Your task to perform on an android device: delete a single message in the gmail app Image 0: 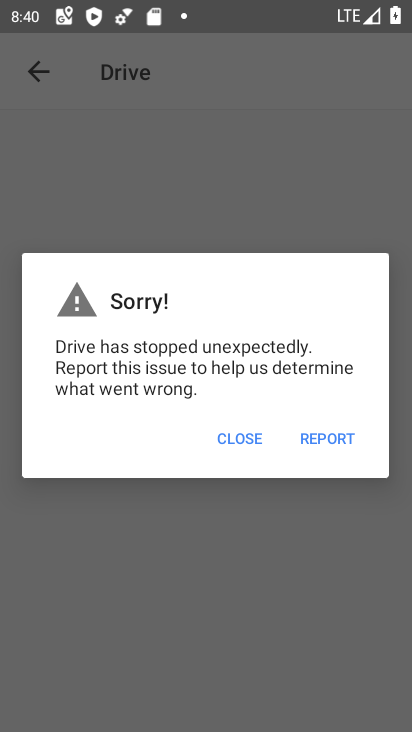
Step 0: press home button
Your task to perform on an android device: delete a single message in the gmail app Image 1: 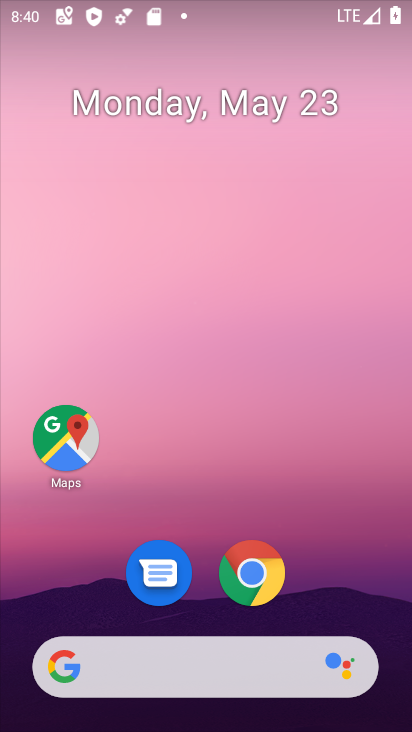
Step 1: drag from (337, 549) to (295, 18)
Your task to perform on an android device: delete a single message in the gmail app Image 2: 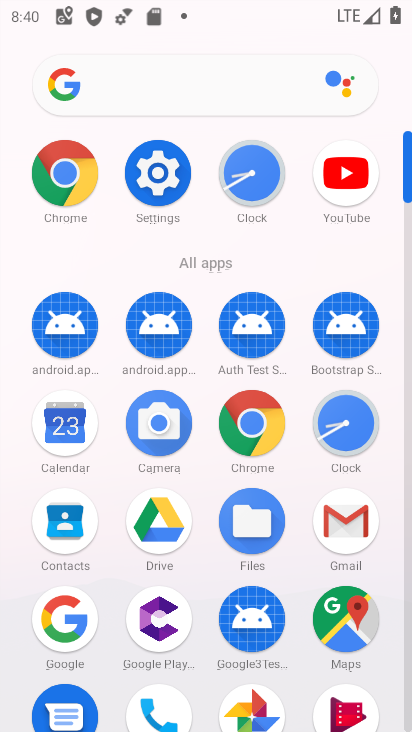
Step 2: click (342, 518)
Your task to perform on an android device: delete a single message in the gmail app Image 3: 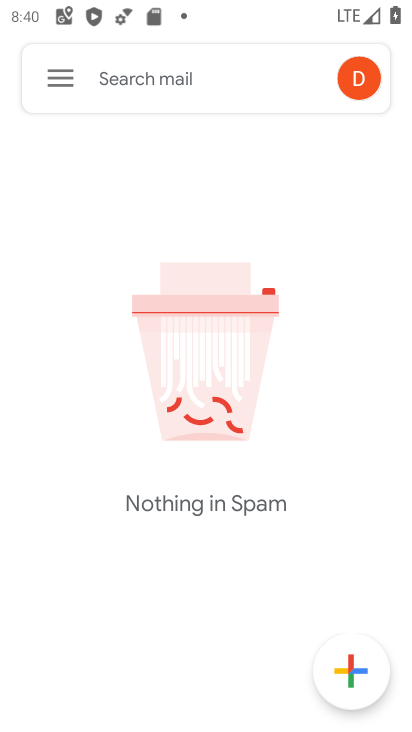
Step 3: click (60, 75)
Your task to perform on an android device: delete a single message in the gmail app Image 4: 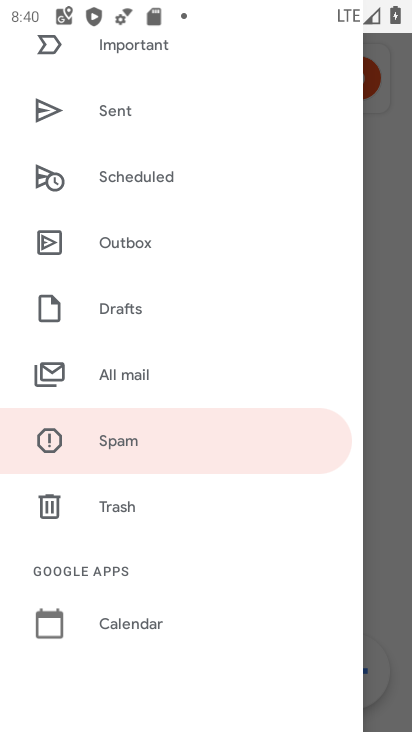
Step 4: click (116, 368)
Your task to perform on an android device: delete a single message in the gmail app Image 5: 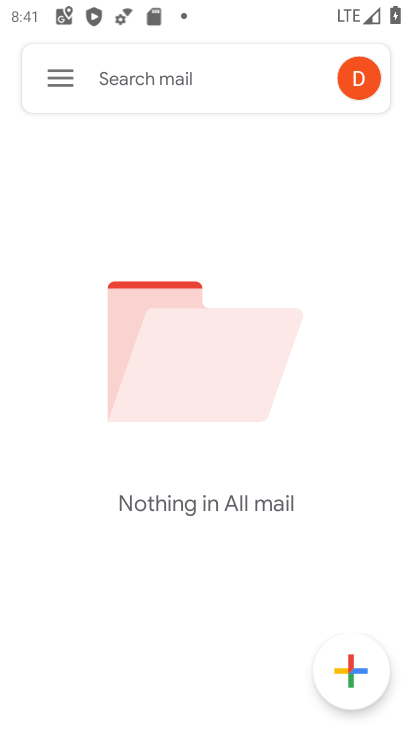
Step 5: task complete